Your task to perform on an android device: Open the calendar and show me this week's events? Image 0: 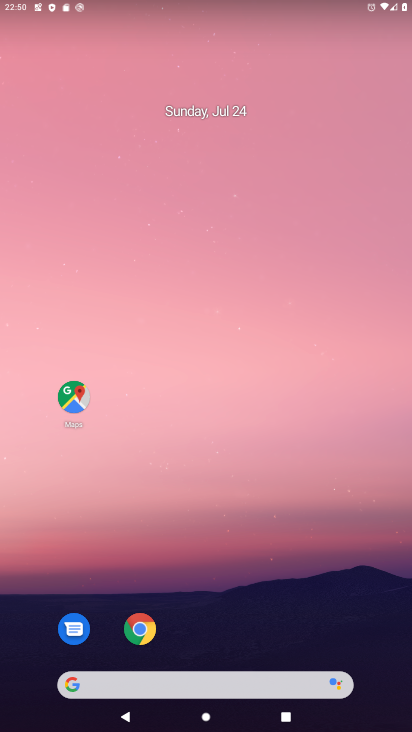
Step 0: drag from (182, 665) to (263, 230)
Your task to perform on an android device: Open the calendar and show me this week's events? Image 1: 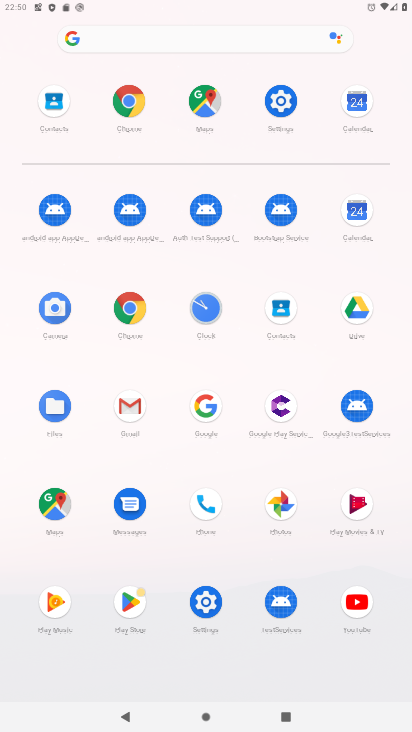
Step 1: click (361, 209)
Your task to perform on an android device: Open the calendar and show me this week's events? Image 2: 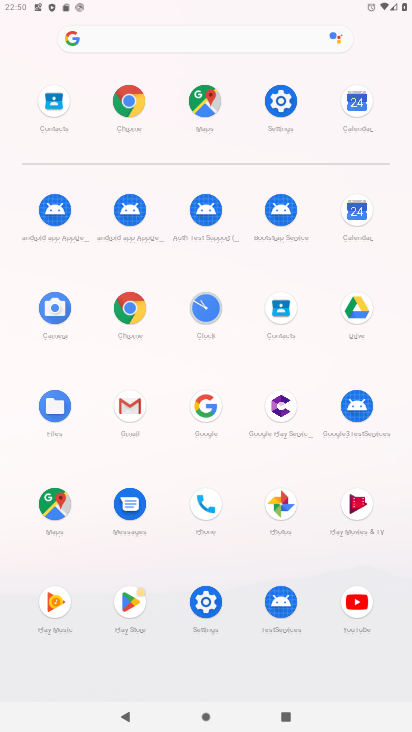
Step 2: click (361, 209)
Your task to perform on an android device: Open the calendar and show me this week's events? Image 3: 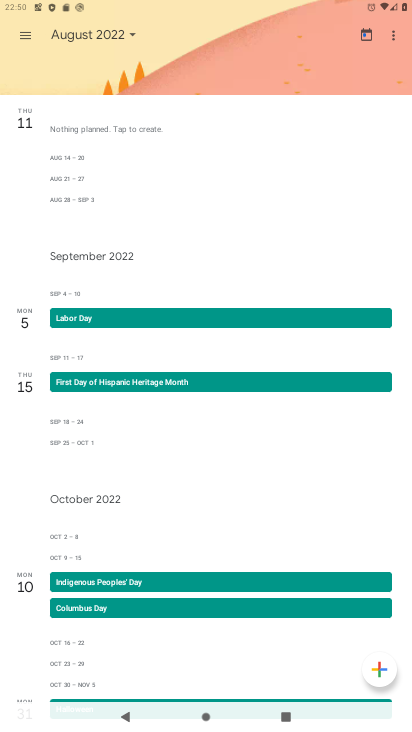
Step 3: click (64, 40)
Your task to perform on an android device: Open the calendar and show me this week's events? Image 4: 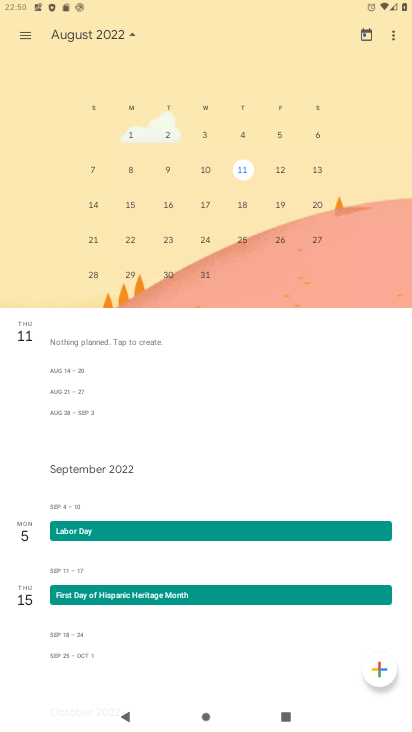
Step 4: click (367, 33)
Your task to perform on an android device: Open the calendar and show me this week's events? Image 5: 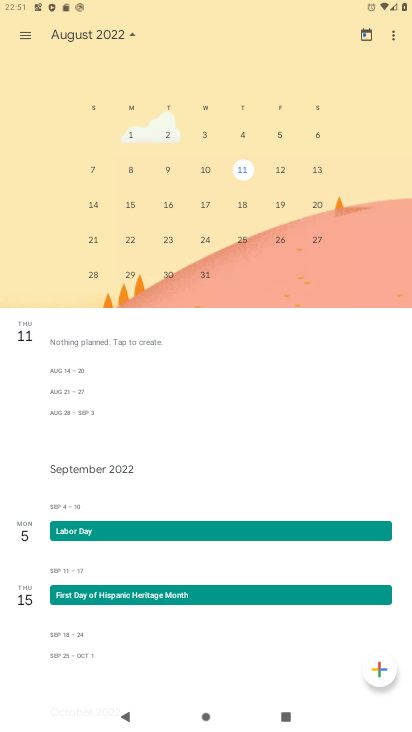
Step 5: click (364, 35)
Your task to perform on an android device: Open the calendar and show me this week's events? Image 6: 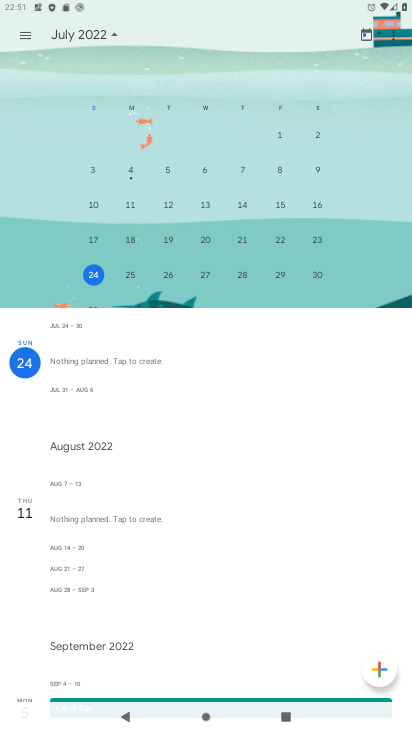
Step 6: click (324, 277)
Your task to perform on an android device: Open the calendar and show me this week's events? Image 7: 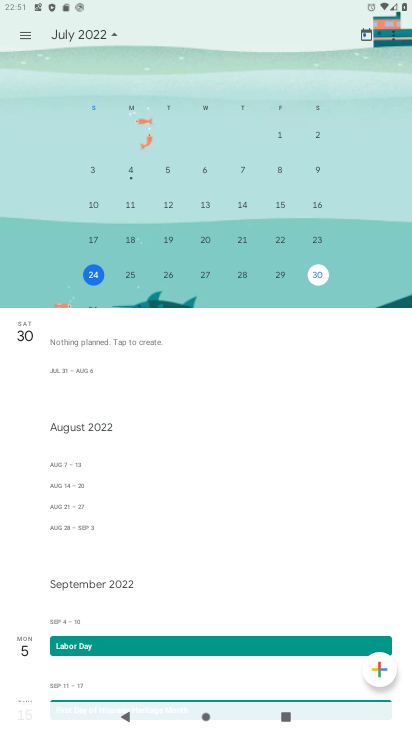
Step 7: task complete